Your task to perform on an android device: Open the phone app and click the voicemail tab. Image 0: 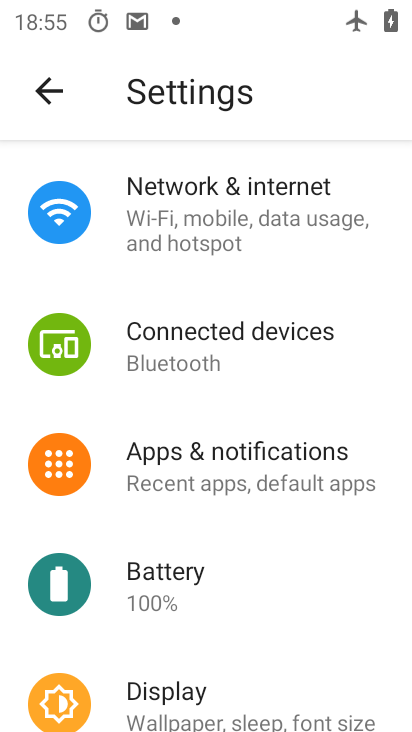
Step 0: press home button
Your task to perform on an android device: Open the phone app and click the voicemail tab. Image 1: 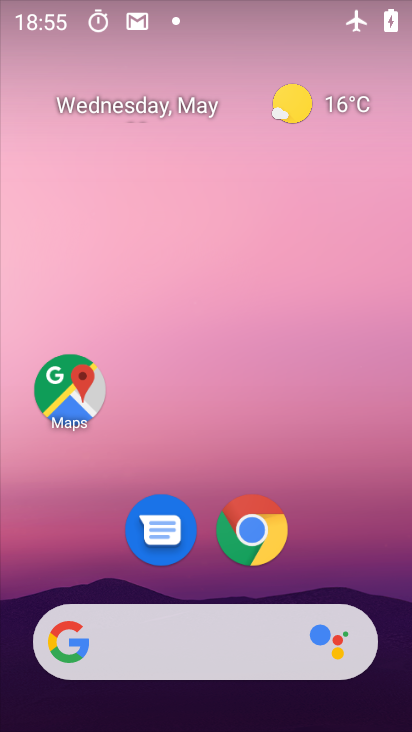
Step 1: drag from (167, 596) to (192, 186)
Your task to perform on an android device: Open the phone app and click the voicemail tab. Image 2: 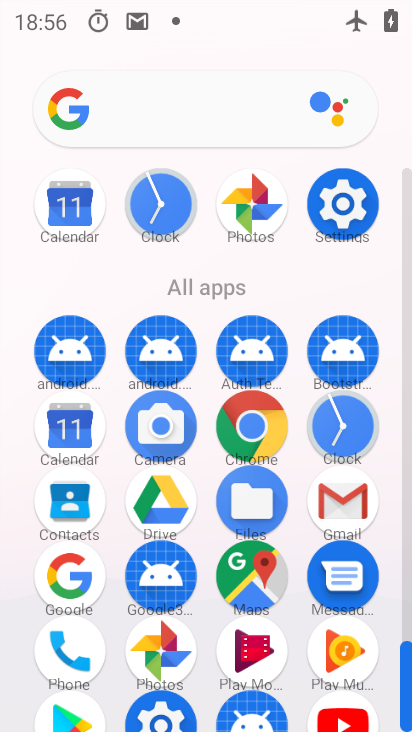
Step 2: click (67, 646)
Your task to perform on an android device: Open the phone app and click the voicemail tab. Image 3: 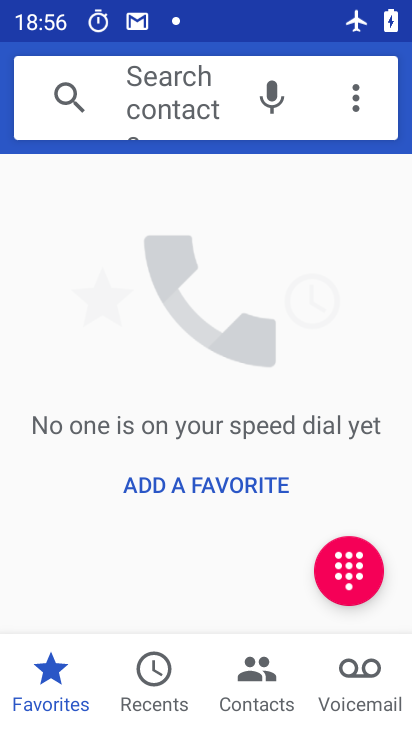
Step 3: click (371, 692)
Your task to perform on an android device: Open the phone app and click the voicemail tab. Image 4: 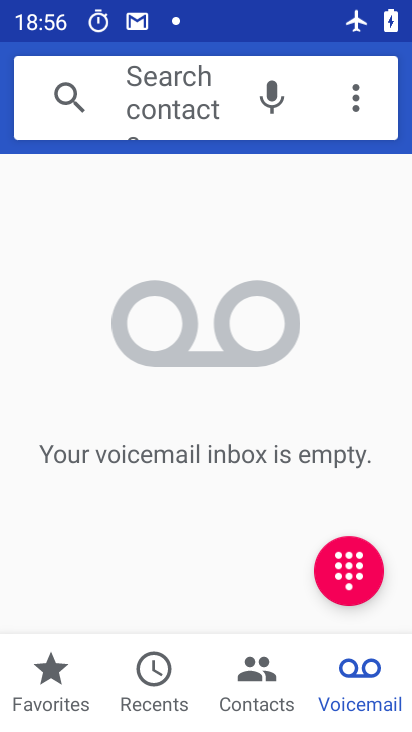
Step 4: task complete